Your task to perform on an android device: Open notification settings Image 0: 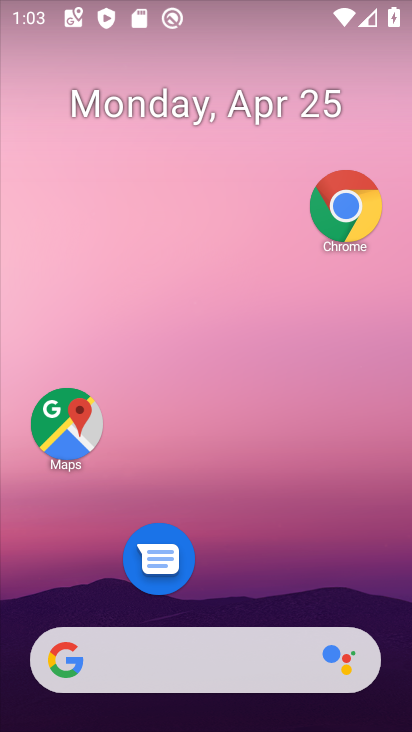
Step 0: drag from (209, 602) to (274, 55)
Your task to perform on an android device: Open notification settings Image 1: 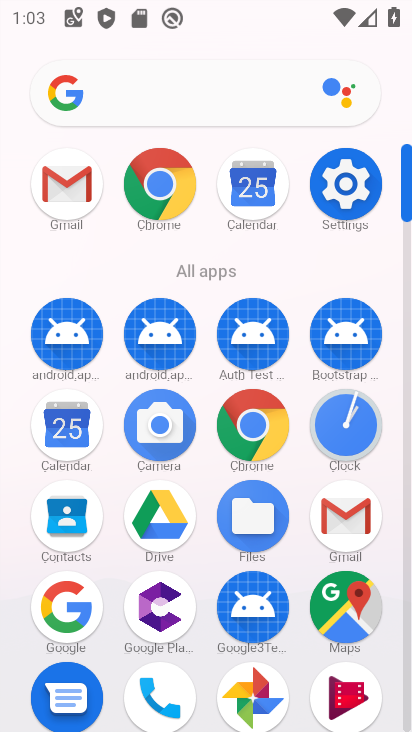
Step 1: click (341, 175)
Your task to perform on an android device: Open notification settings Image 2: 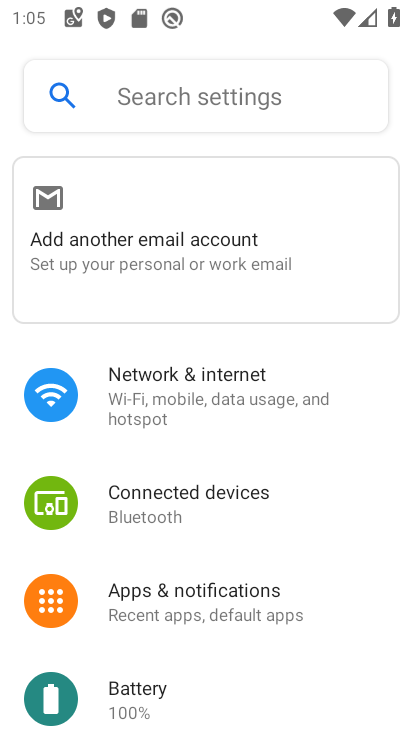
Step 2: click (185, 605)
Your task to perform on an android device: Open notification settings Image 3: 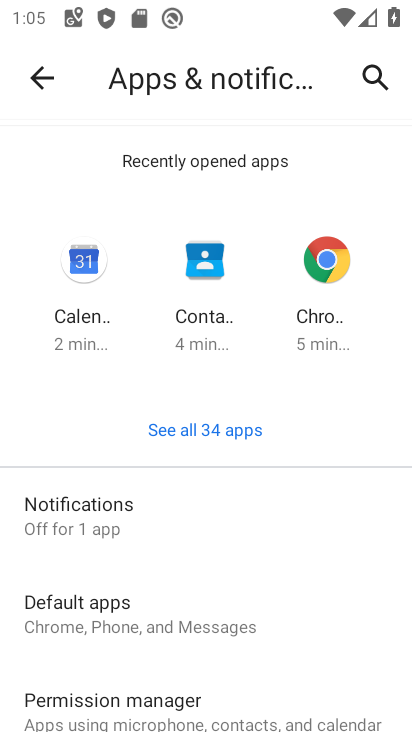
Step 3: click (107, 521)
Your task to perform on an android device: Open notification settings Image 4: 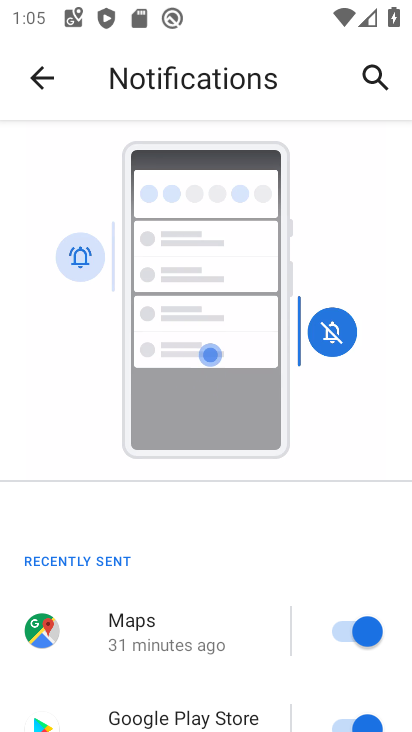
Step 4: task complete